Your task to perform on an android device: turn on improve location accuracy Image 0: 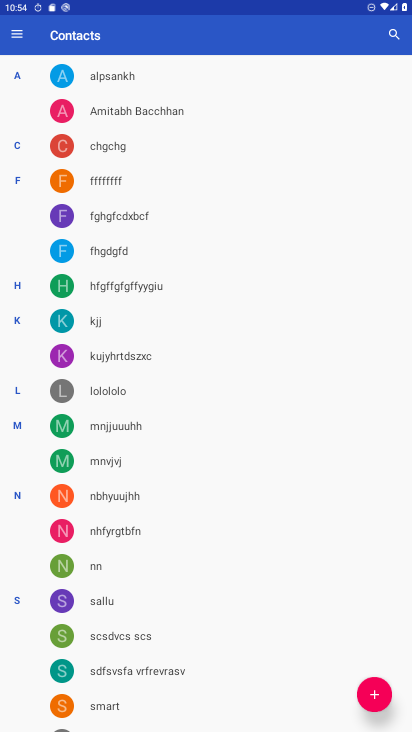
Step 0: press home button
Your task to perform on an android device: turn on improve location accuracy Image 1: 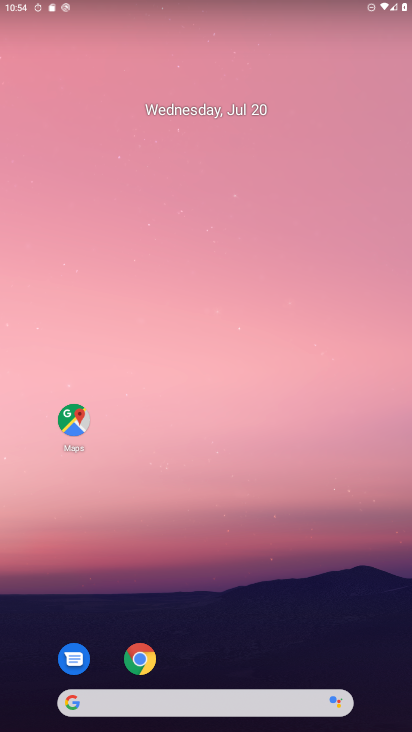
Step 1: drag from (325, 648) to (145, 93)
Your task to perform on an android device: turn on improve location accuracy Image 2: 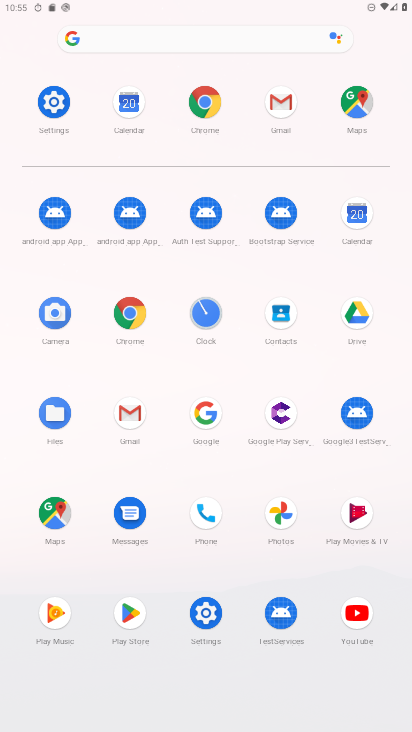
Step 2: click (64, 102)
Your task to perform on an android device: turn on improve location accuracy Image 3: 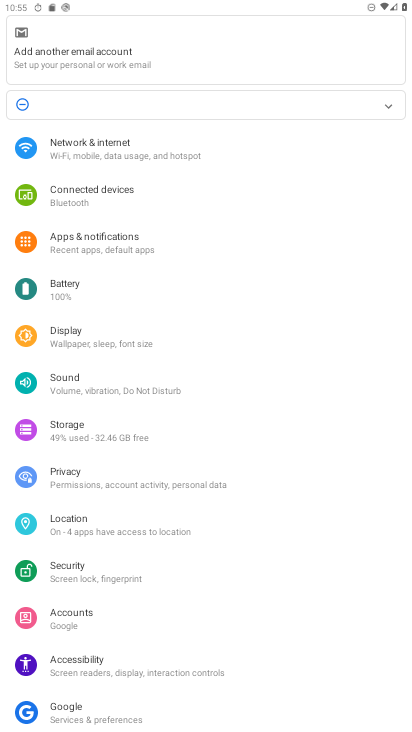
Step 3: click (90, 519)
Your task to perform on an android device: turn on improve location accuracy Image 4: 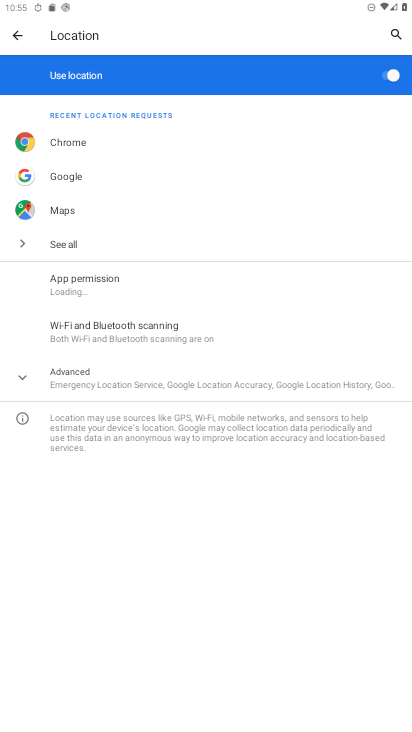
Step 4: click (106, 381)
Your task to perform on an android device: turn on improve location accuracy Image 5: 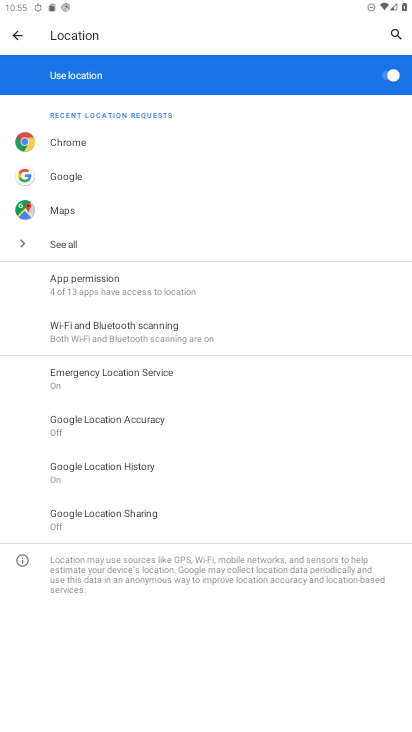
Step 5: click (126, 425)
Your task to perform on an android device: turn on improve location accuracy Image 6: 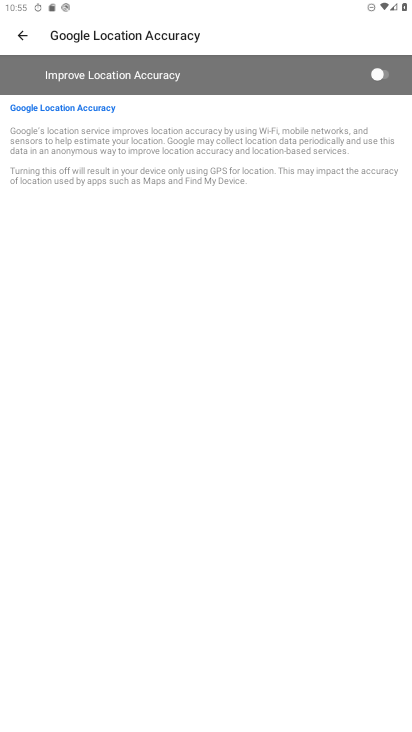
Step 6: click (363, 72)
Your task to perform on an android device: turn on improve location accuracy Image 7: 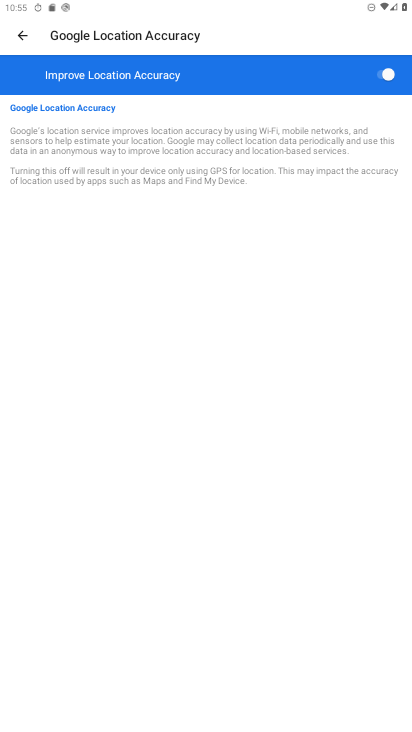
Step 7: task complete